Your task to perform on an android device: What's the weather going to be this weekend? Image 0: 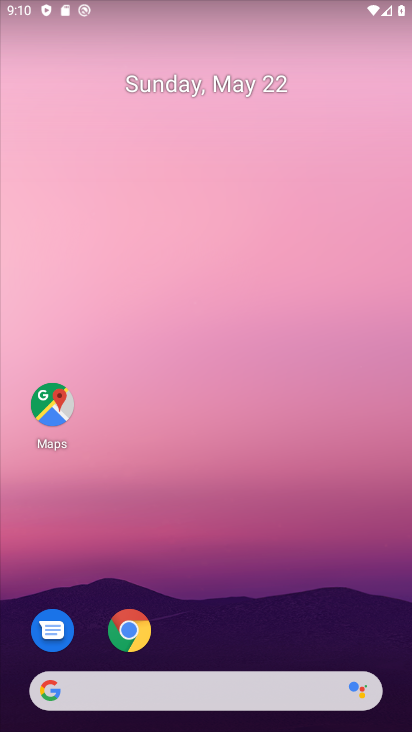
Step 0: drag from (28, 221) to (375, 251)
Your task to perform on an android device: What's the weather going to be this weekend? Image 1: 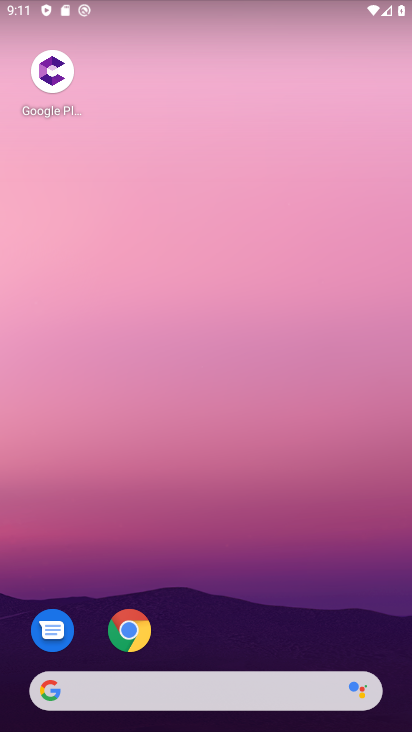
Step 1: drag from (12, 224) to (378, 264)
Your task to perform on an android device: What's the weather going to be this weekend? Image 2: 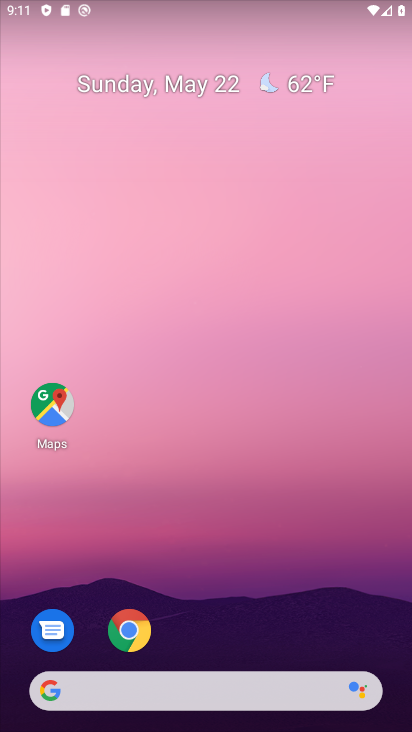
Step 2: drag from (21, 269) to (305, 269)
Your task to perform on an android device: What's the weather going to be this weekend? Image 3: 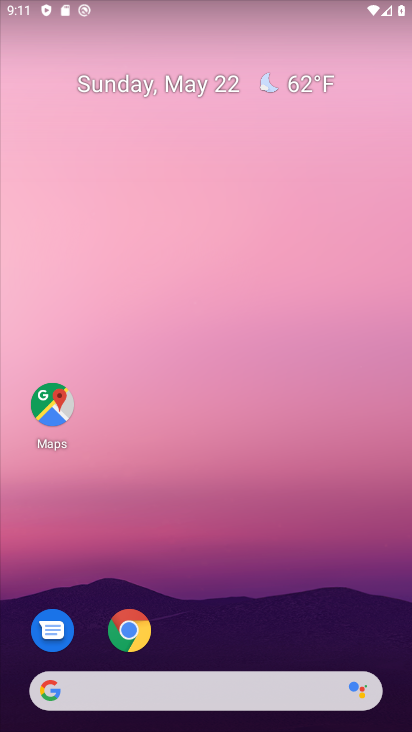
Step 3: click (320, 82)
Your task to perform on an android device: What's the weather going to be this weekend? Image 4: 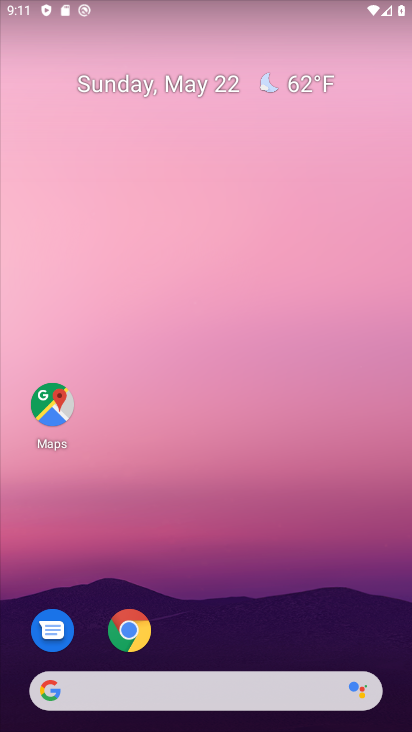
Step 4: click (302, 82)
Your task to perform on an android device: What's the weather going to be this weekend? Image 5: 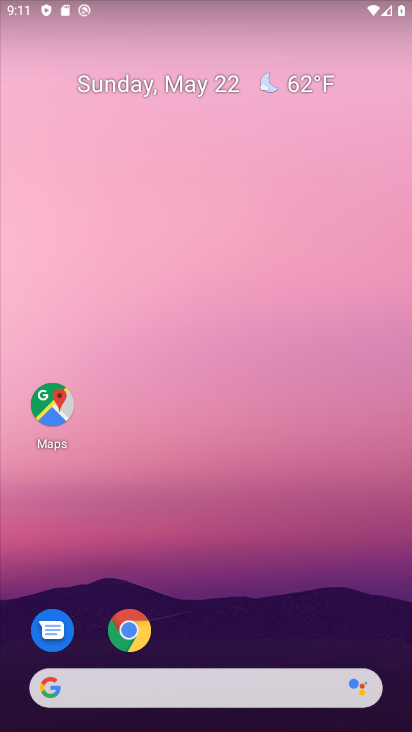
Step 5: click (301, 82)
Your task to perform on an android device: What's the weather going to be this weekend? Image 6: 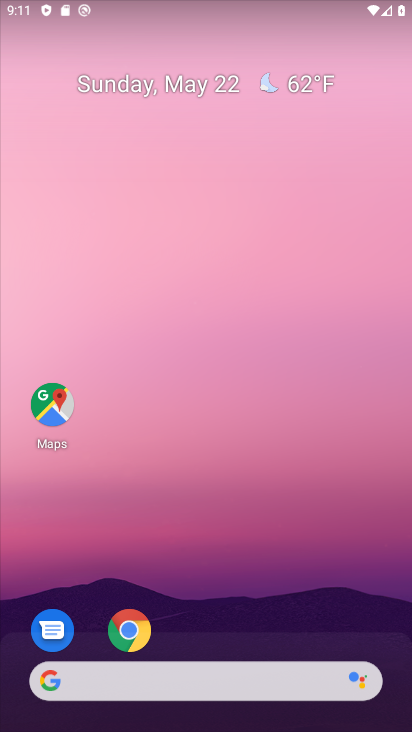
Step 6: click (309, 86)
Your task to perform on an android device: What's the weather going to be this weekend? Image 7: 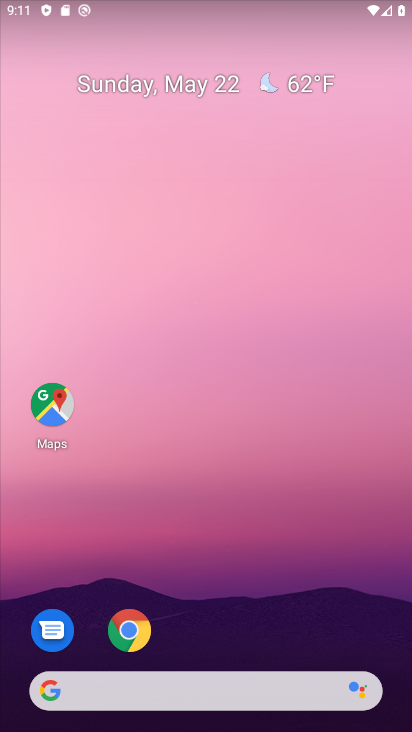
Step 7: drag from (349, 633) to (323, 53)
Your task to perform on an android device: What's the weather going to be this weekend? Image 8: 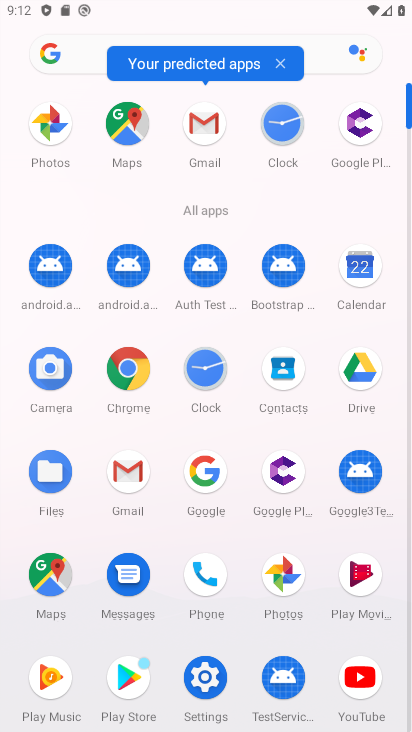
Step 8: click (83, 55)
Your task to perform on an android device: What's the weather going to be this weekend? Image 9: 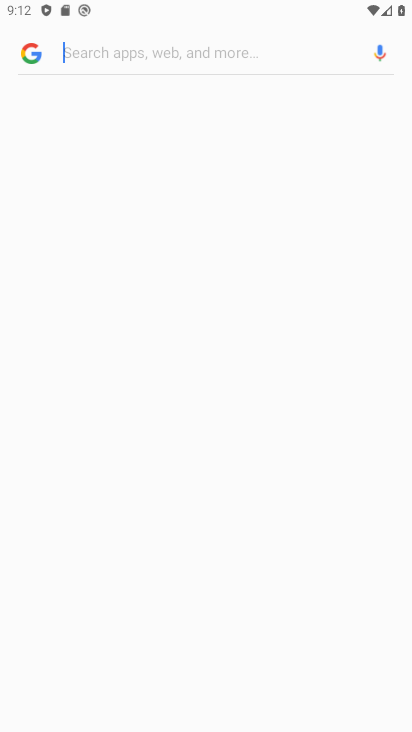
Step 9: click (174, 61)
Your task to perform on an android device: What's the weather going to be this weekend? Image 10: 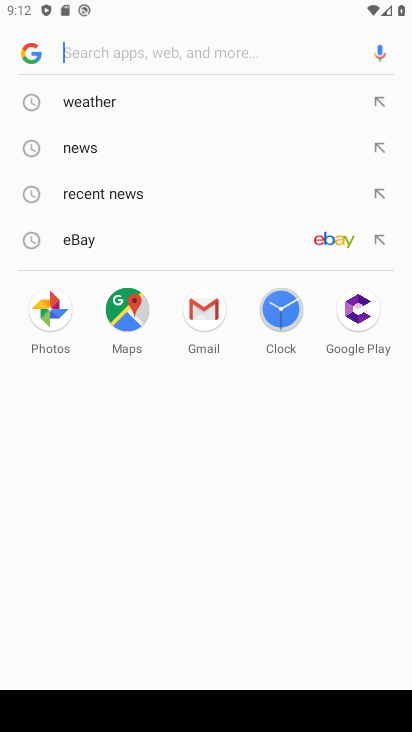
Step 10: click (85, 101)
Your task to perform on an android device: What's the weather going to be this weekend? Image 11: 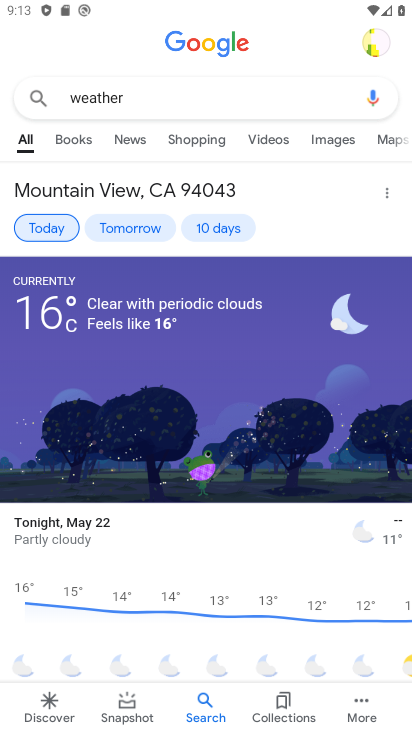
Step 11: task complete